Your task to perform on an android device: turn off airplane mode Image 0: 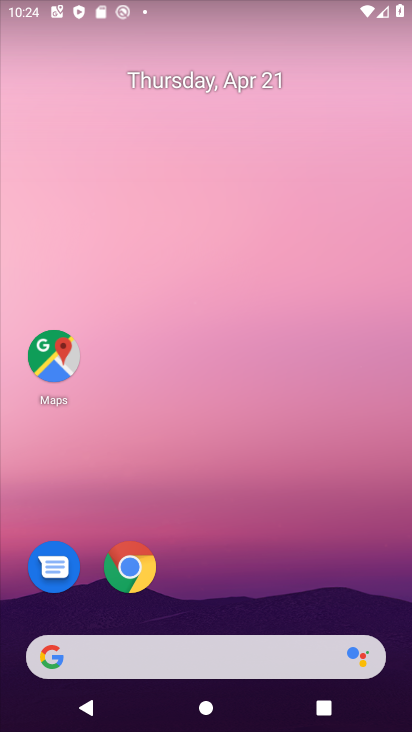
Step 0: drag from (220, 586) to (322, 60)
Your task to perform on an android device: turn off airplane mode Image 1: 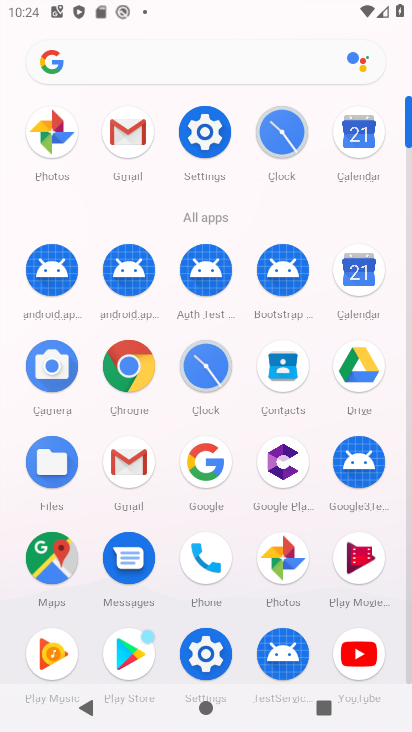
Step 1: click (207, 156)
Your task to perform on an android device: turn off airplane mode Image 2: 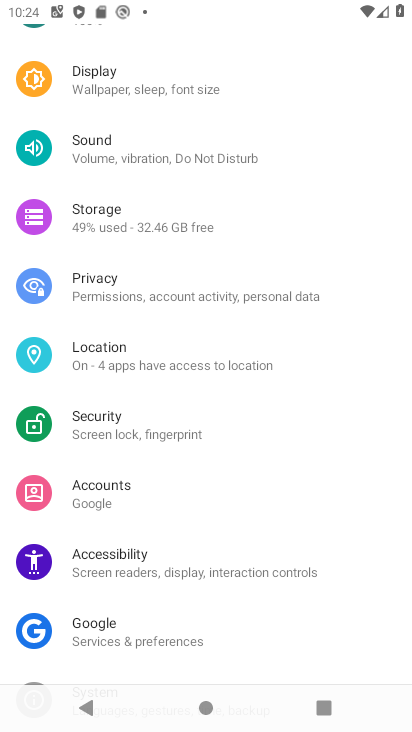
Step 2: drag from (208, 254) to (198, 729)
Your task to perform on an android device: turn off airplane mode Image 3: 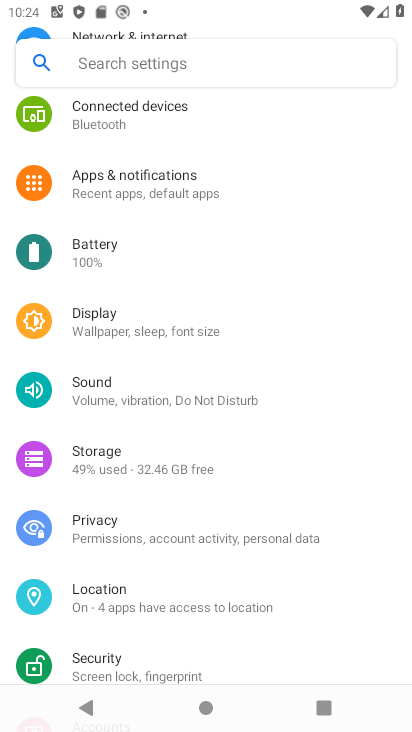
Step 3: drag from (254, 212) to (249, 707)
Your task to perform on an android device: turn off airplane mode Image 4: 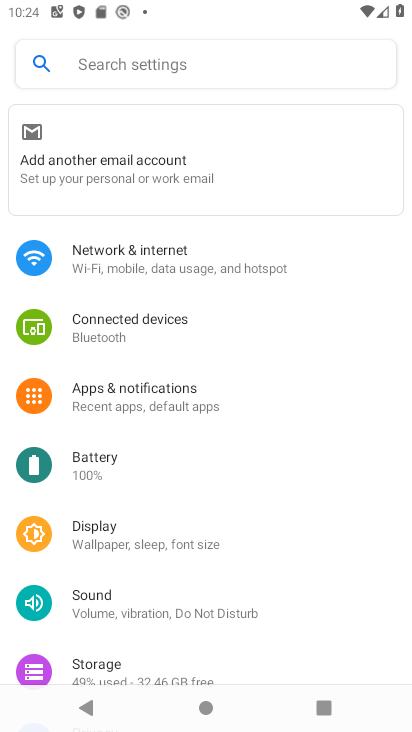
Step 4: click (178, 251)
Your task to perform on an android device: turn off airplane mode Image 5: 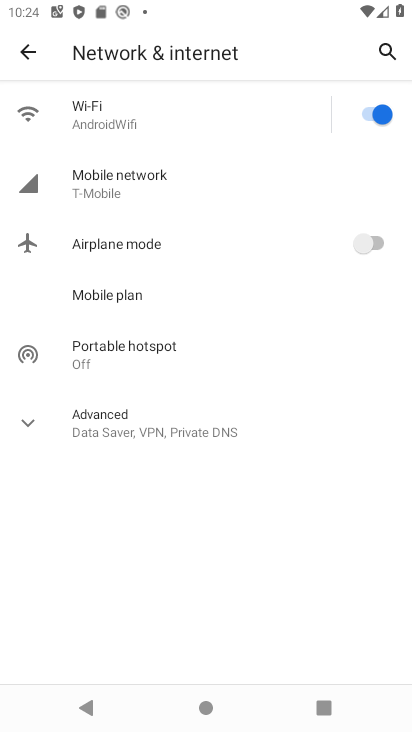
Step 5: task complete